Your task to perform on an android device: turn notification dots off Image 0: 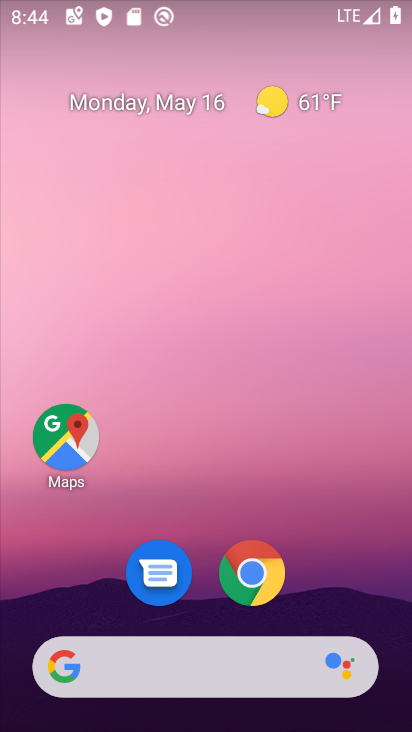
Step 0: drag from (209, 728) to (206, 191)
Your task to perform on an android device: turn notification dots off Image 1: 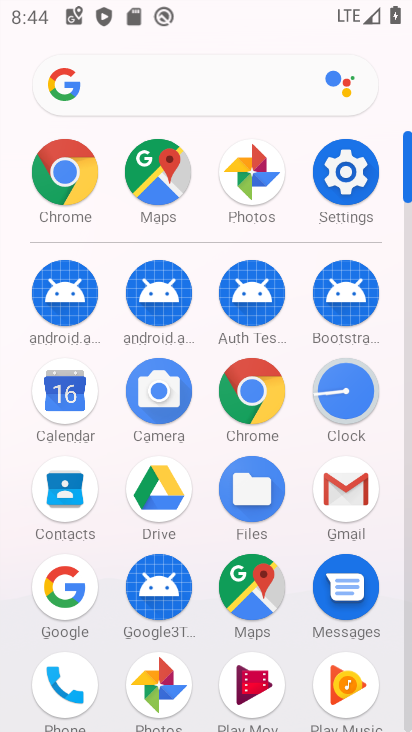
Step 1: click (349, 174)
Your task to perform on an android device: turn notification dots off Image 2: 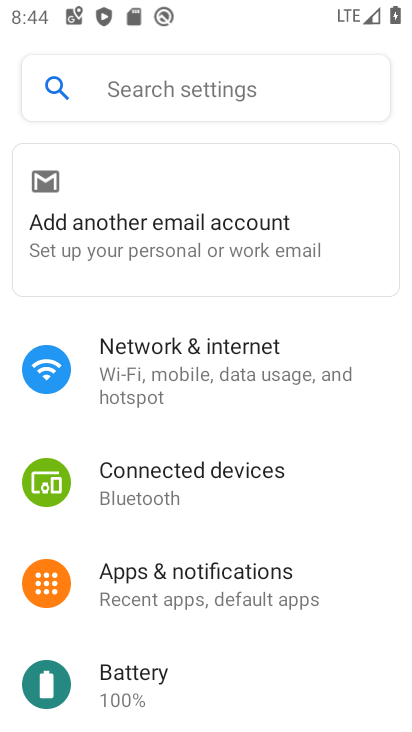
Step 2: click (194, 586)
Your task to perform on an android device: turn notification dots off Image 3: 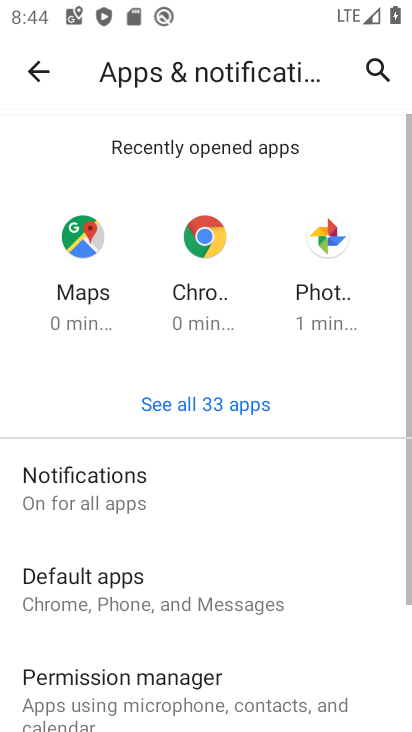
Step 3: drag from (183, 651) to (182, 432)
Your task to perform on an android device: turn notification dots off Image 4: 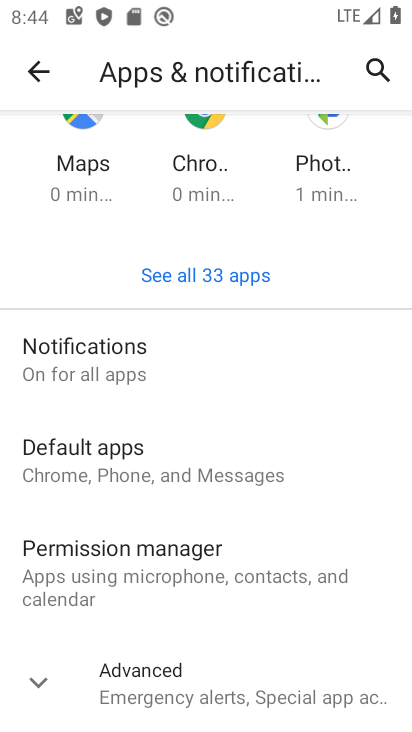
Step 4: click (81, 366)
Your task to perform on an android device: turn notification dots off Image 5: 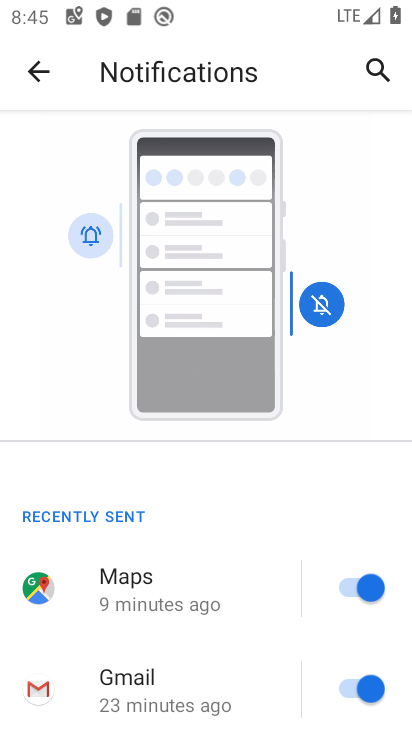
Step 5: drag from (208, 684) to (207, 288)
Your task to perform on an android device: turn notification dots off Image 6: 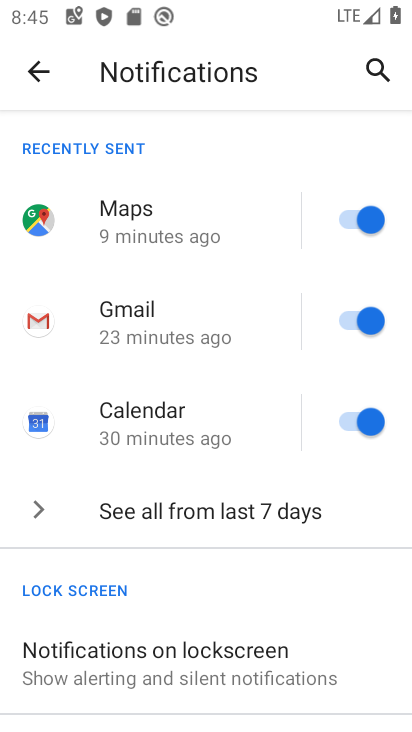
Step 6: drag from (231, 662) to (219, 308)
Your task to perform on an android device: turn notification dots off Image 7: 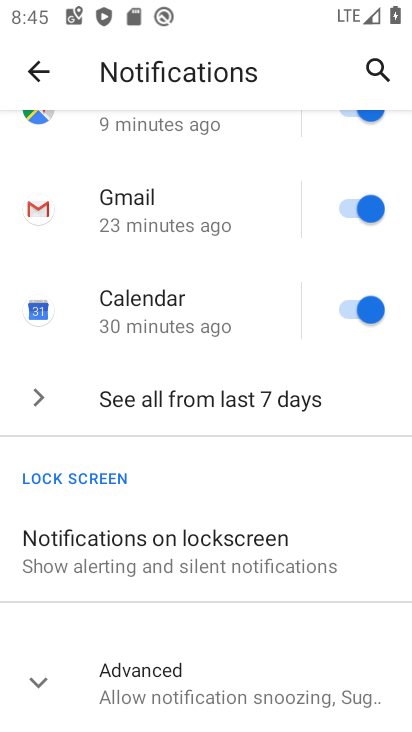
Step 7: click (143, 684)
Your task to perform on an android device: turn notification dots off Image 8: 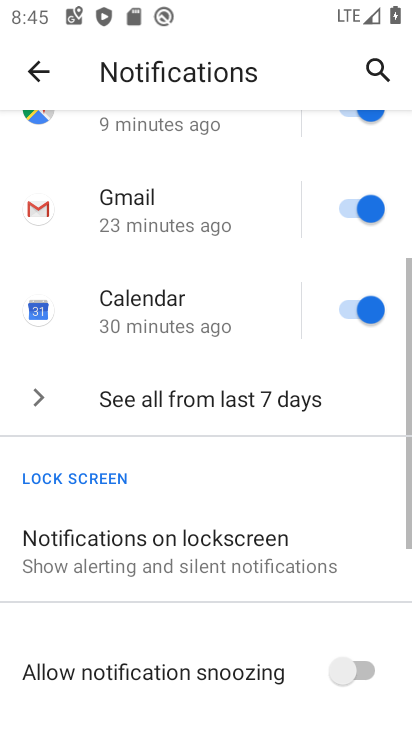
Step 8: drag from (192, 698) to (192, 361)
Your task to perform on an android device: turn notification dots off Image 9: 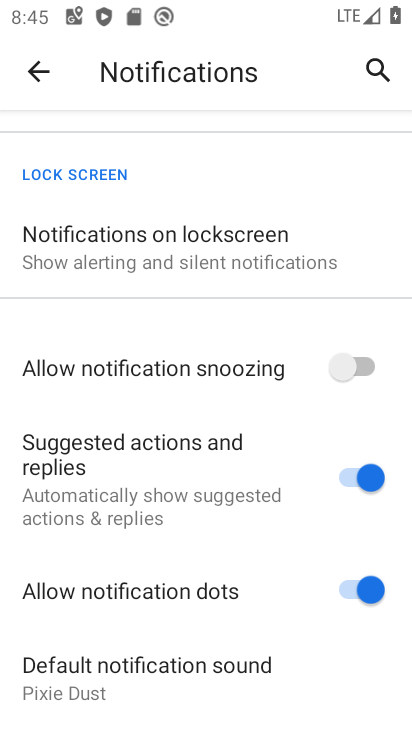
Step 9: click (352, 587)
Your task to perform on an android device: turn notification dots off Image 10: 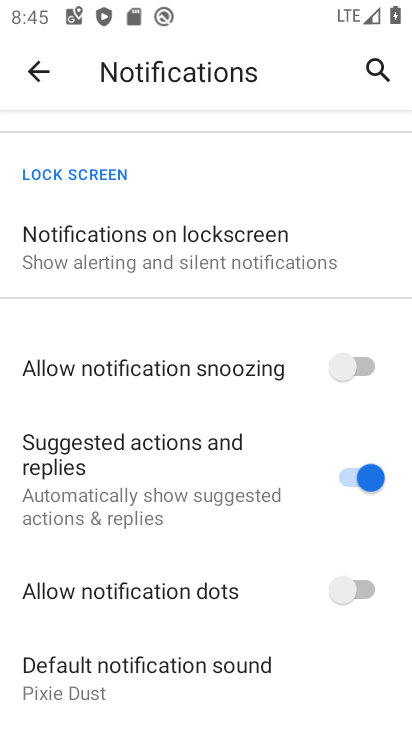
Step 10: task complete